Your task to perform on an android device: manage bookmarks in the chrome app Image 0: 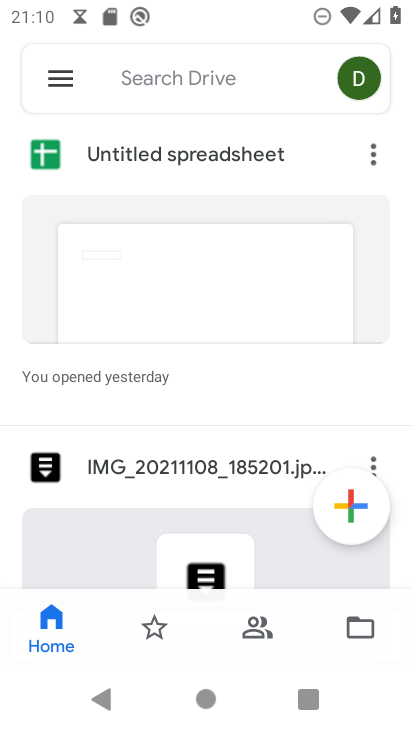
Step 0: press home button
Your task to perform on an android device: manage bookmarks in the chrome app Image 1: 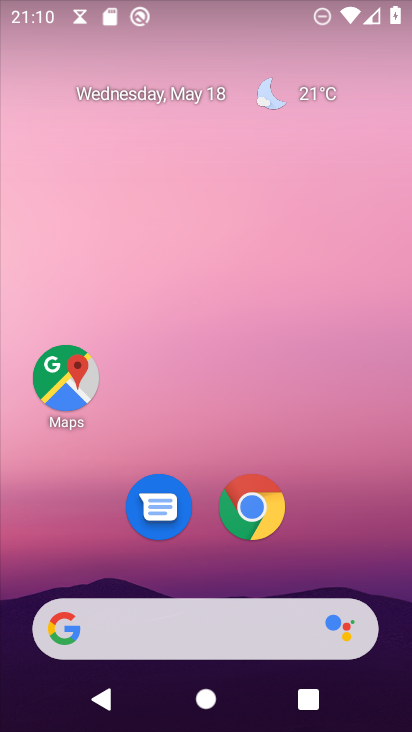
Step 1: click (251, 524)
Your task to perform on an android device: manage bookmarks in the chrome app Image 2: 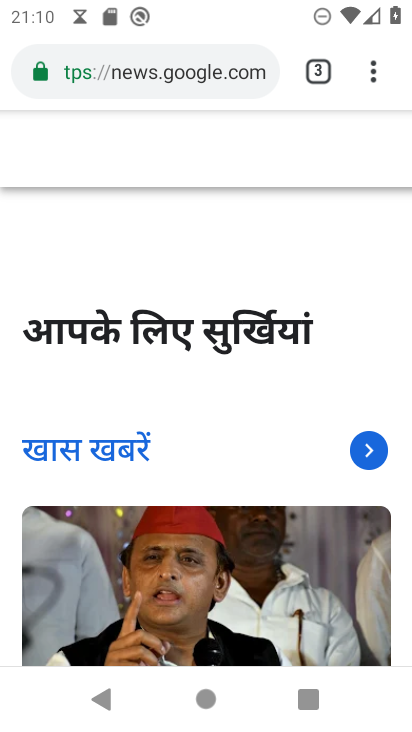
Step 2: click (383, 77)
Your task to perform on an android device: manage bookmarks in the chrome app Image 3: 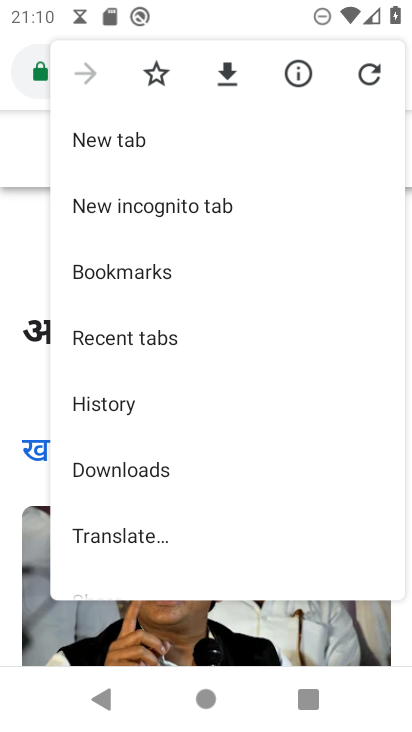
Step 3: click (250, 282)
Your task to perform on an android device: manage bookmarks in the chrome app Image 4: 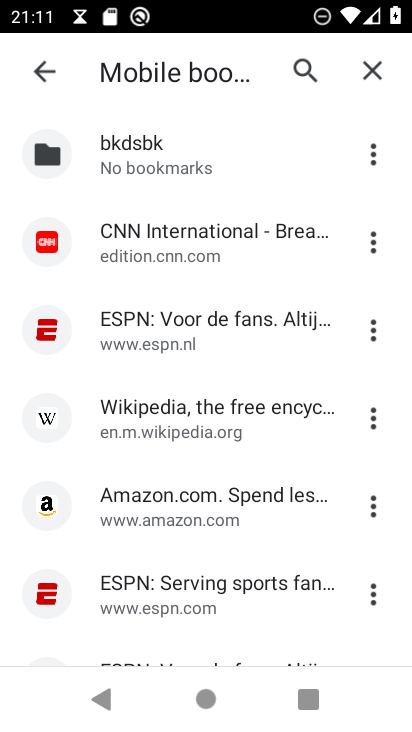
Step 4: click (207, 246)
Your task to perform on an android device: manage bookmarks in the chrome app Image 5: 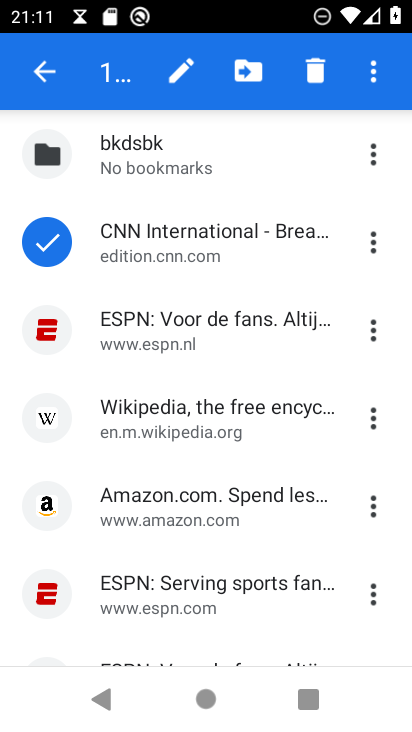
Step 5: click (246, 69)
Your task to perform on an android device: manage bookmarks in the chrome app Image 6: 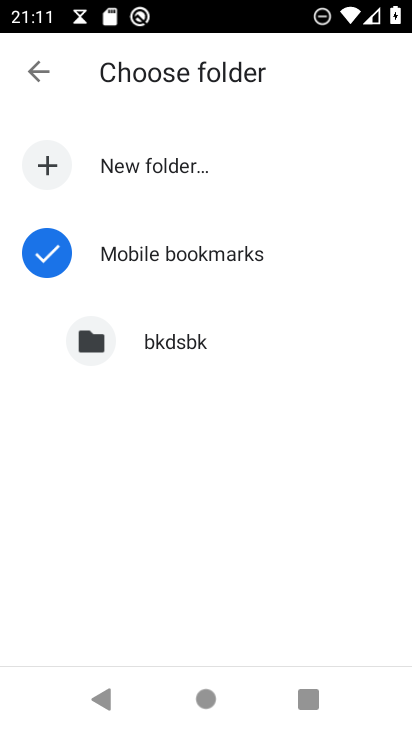
Step 6: click (196, 353)
Your task to perform on an android device: manage bookmarks in the chrome app Image 7: 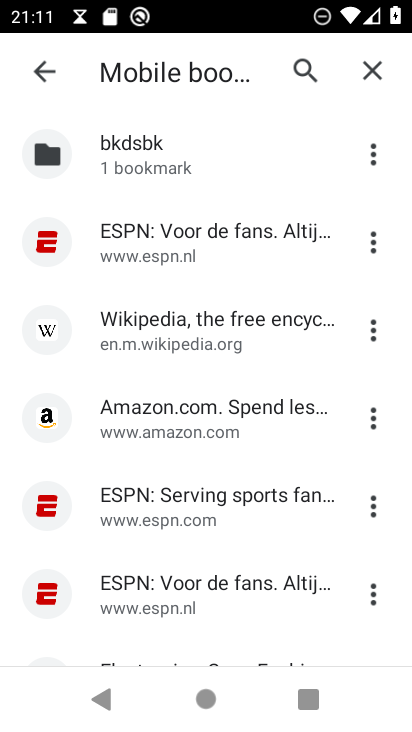
Step 7: task complete